Your task to perform on an android device: Is it going to rain tomorrow? Image 0: 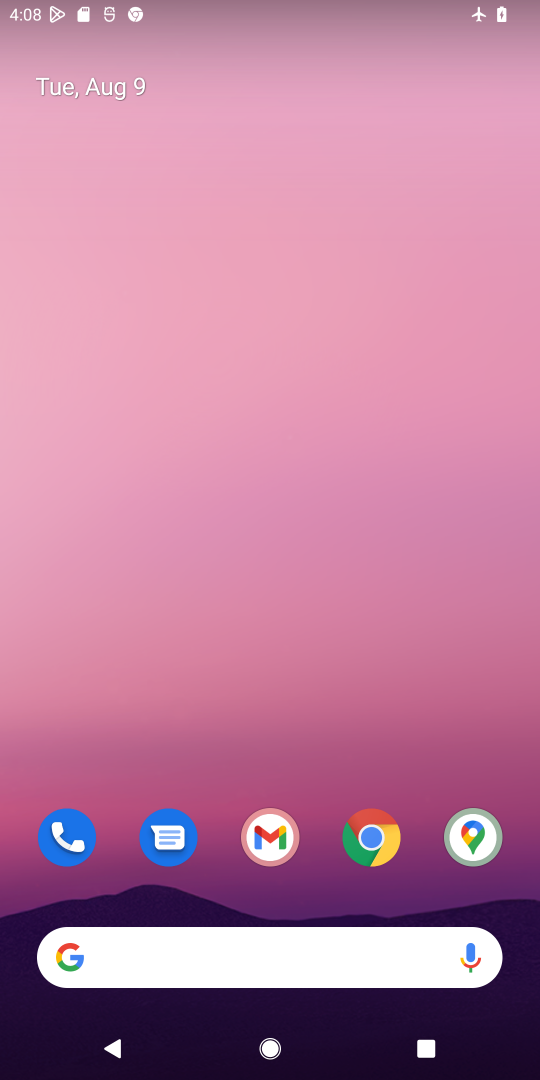
Step 0: drag from (121, 948) to (238, 319)
Your task to perform on an android device: Is it going to rain tomorrow? Image 1: 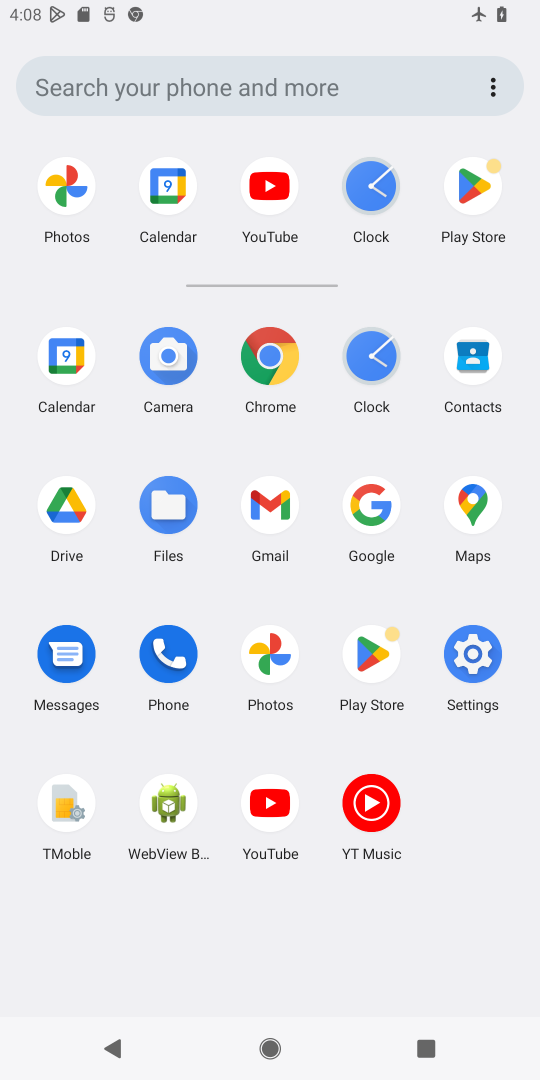
Step 1: click (279, 357)
Your task to perform on an android device: Is it going to rain tomorrow? Image 2: 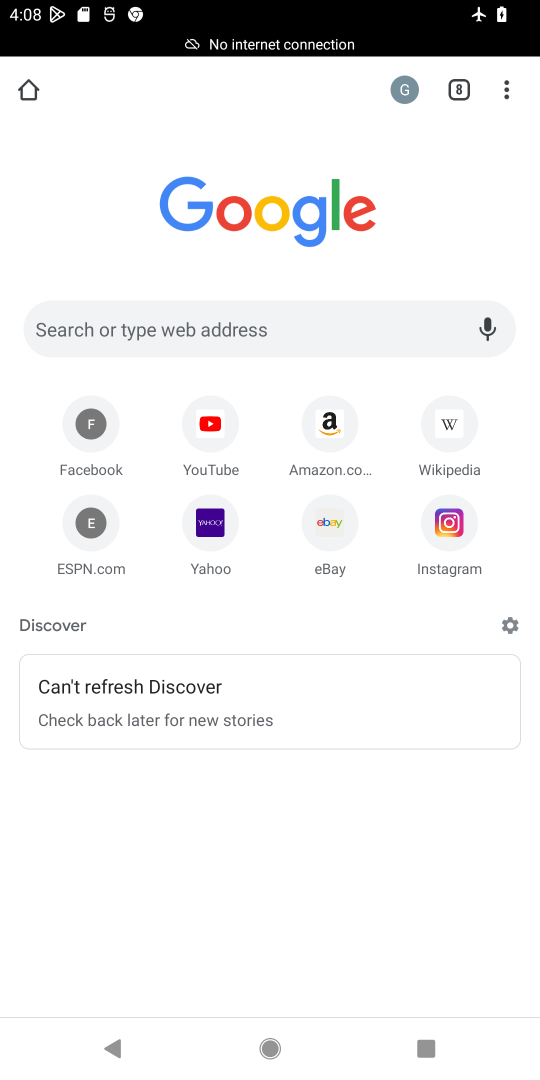
Step 2: click (232, 300)
Your task to perform on an android device: Is it going to rain tomorrow? Image 3: 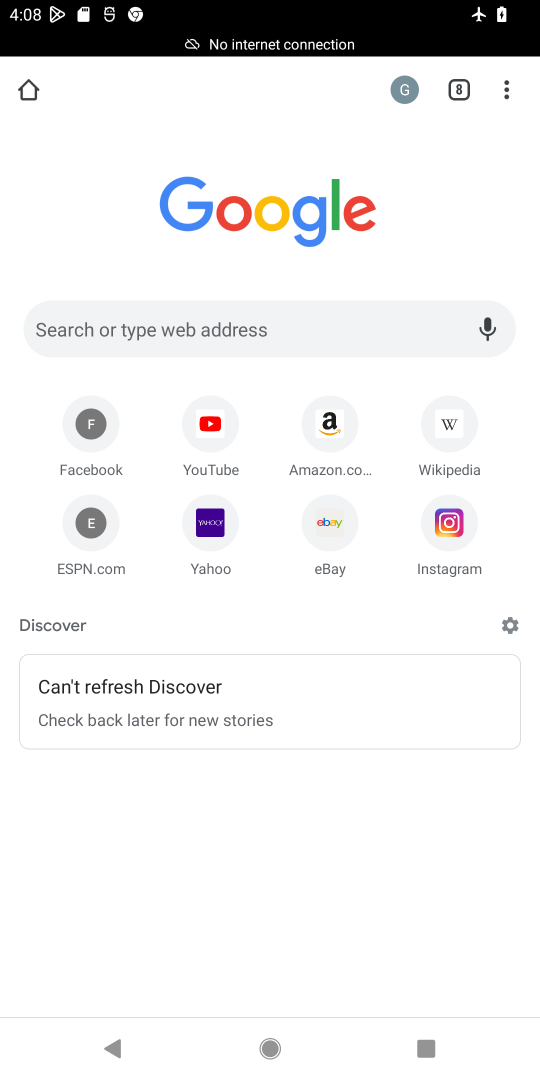
Step 3: type "Is it going to rain tomorrow? "
Your task to perform on an android device: Is it going to rain tomorrow? Image 4: 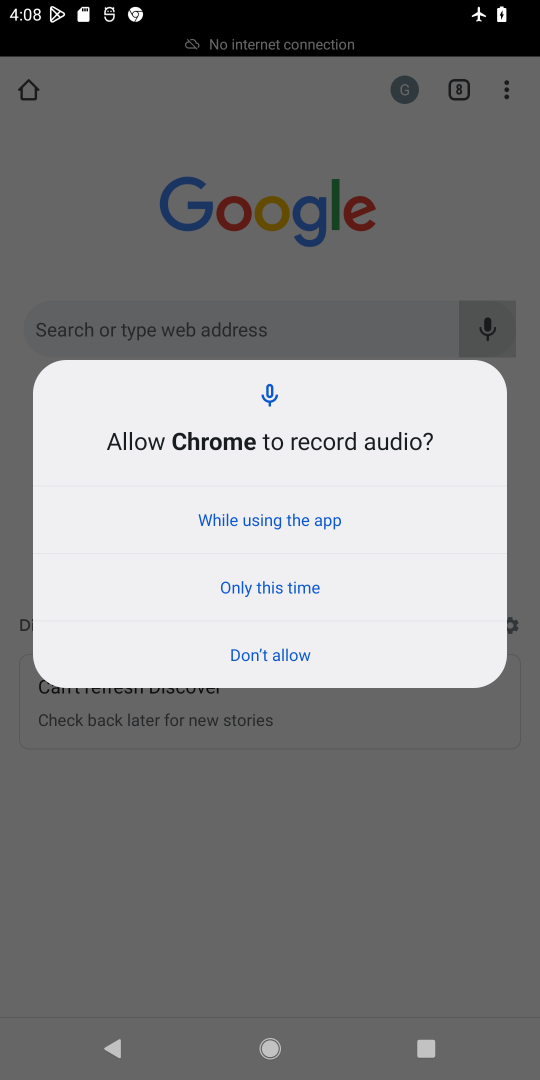
Step 4: click (295, 536)
Your task to perform on an android device: Is it going to rain tomorrow? Image 5: 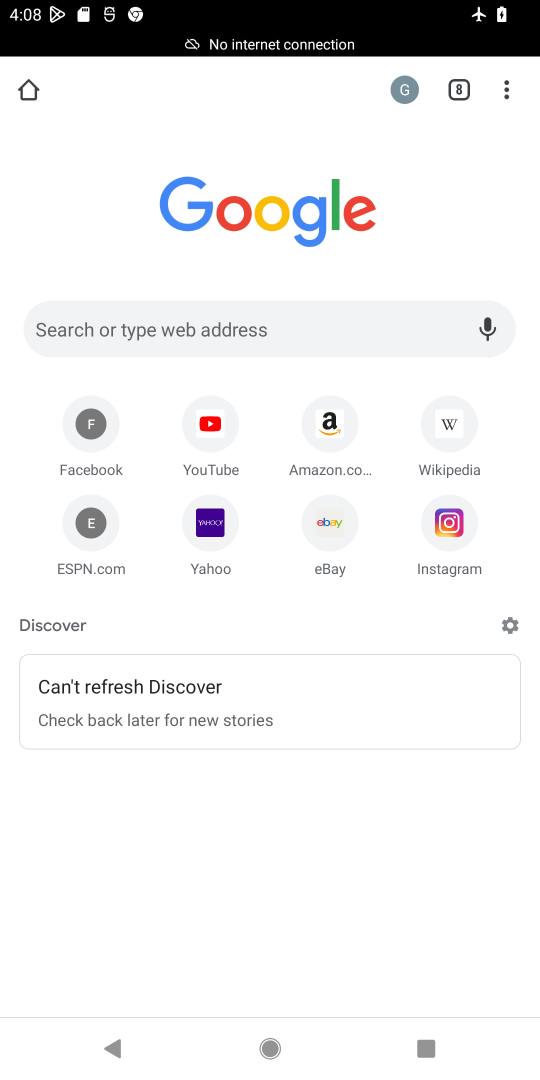
Step 5: click (269, 800)
Your task to perform on an android device: Is it going to rain tomorrow? Image 6: 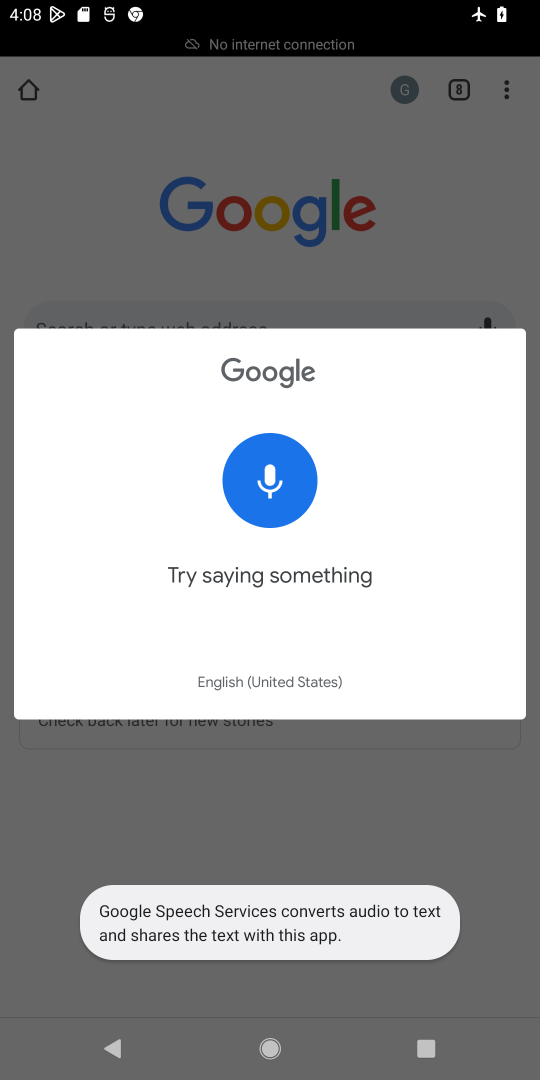
Step 6: click (232, 820)
Your task to perform on an android device: Is it going to rain tomorrow? Image 7: 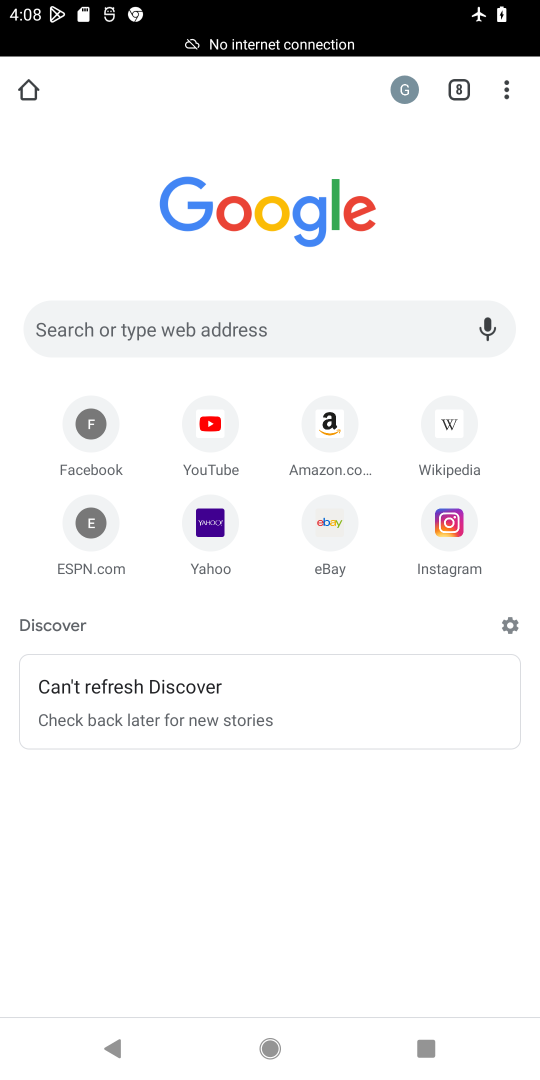
Step 7: click (272, 330)
Your task to perform on an android device: Is it going to rain tomorrow? Image 8: 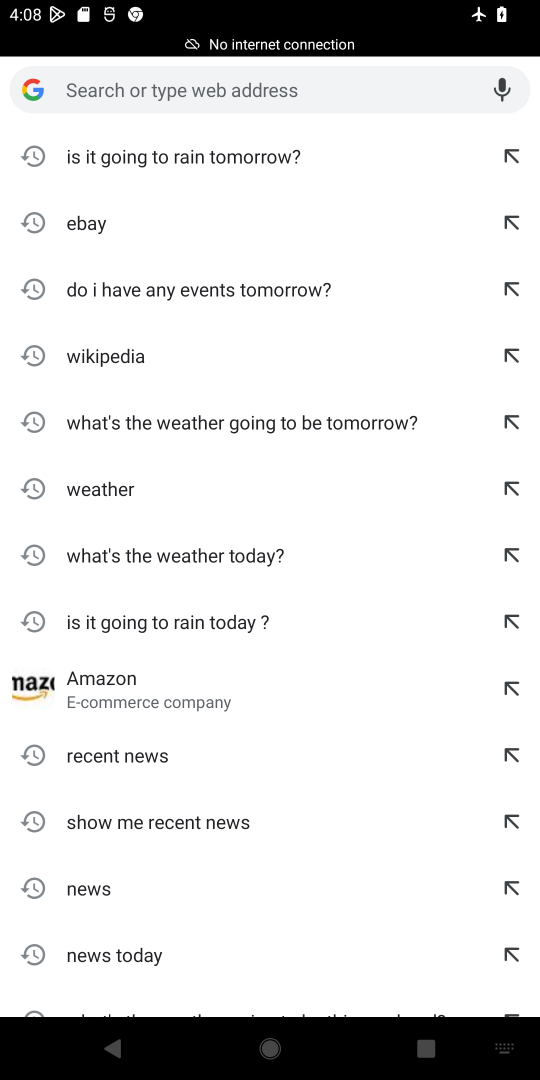
Step 8: type "Is it going to rain tomorrow? "
Your task to perform on an android device: Is it going to rain tomorrow? Image 9: 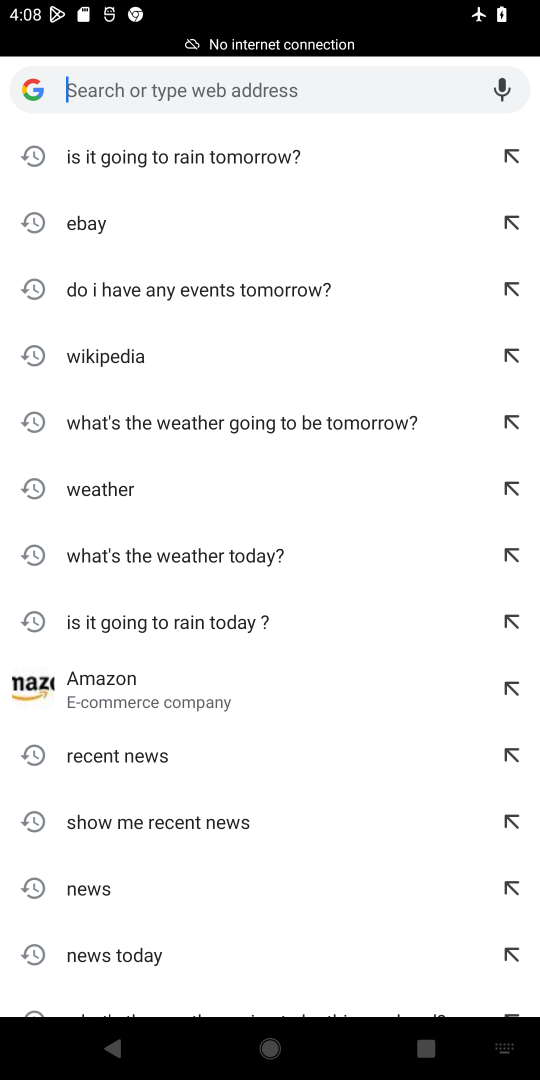
Step 9: click (128, 157)
Your task to perform on an android device: Is it going to rain tomorrow? Image 10: 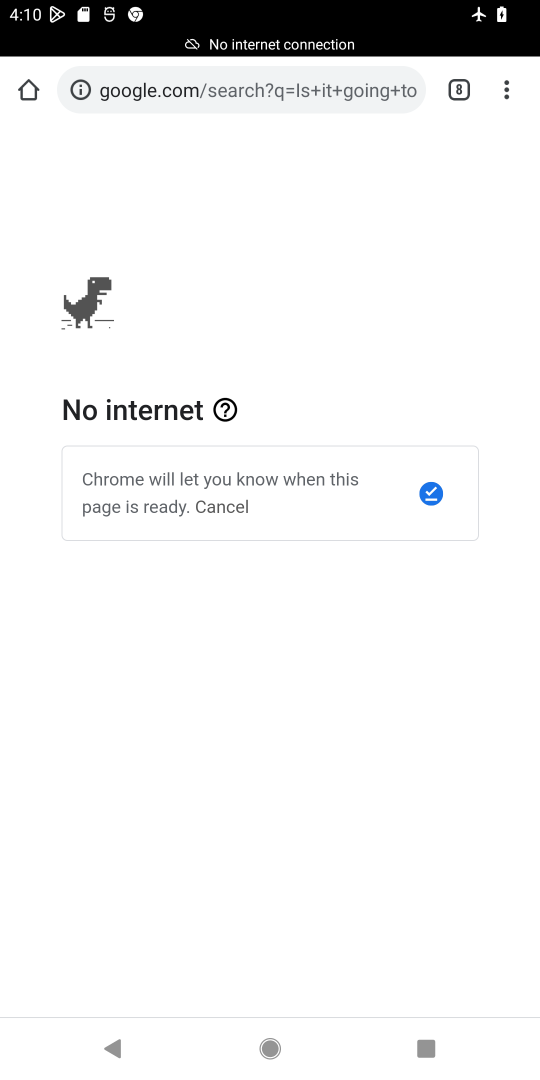
Step 10: task complete